Your task to perform on an android device: open app "Paramount+ | Peak Streaming" (install if not already installed) and enter user name: "fostered@yahoo.com" and password: "strong" Image 0: 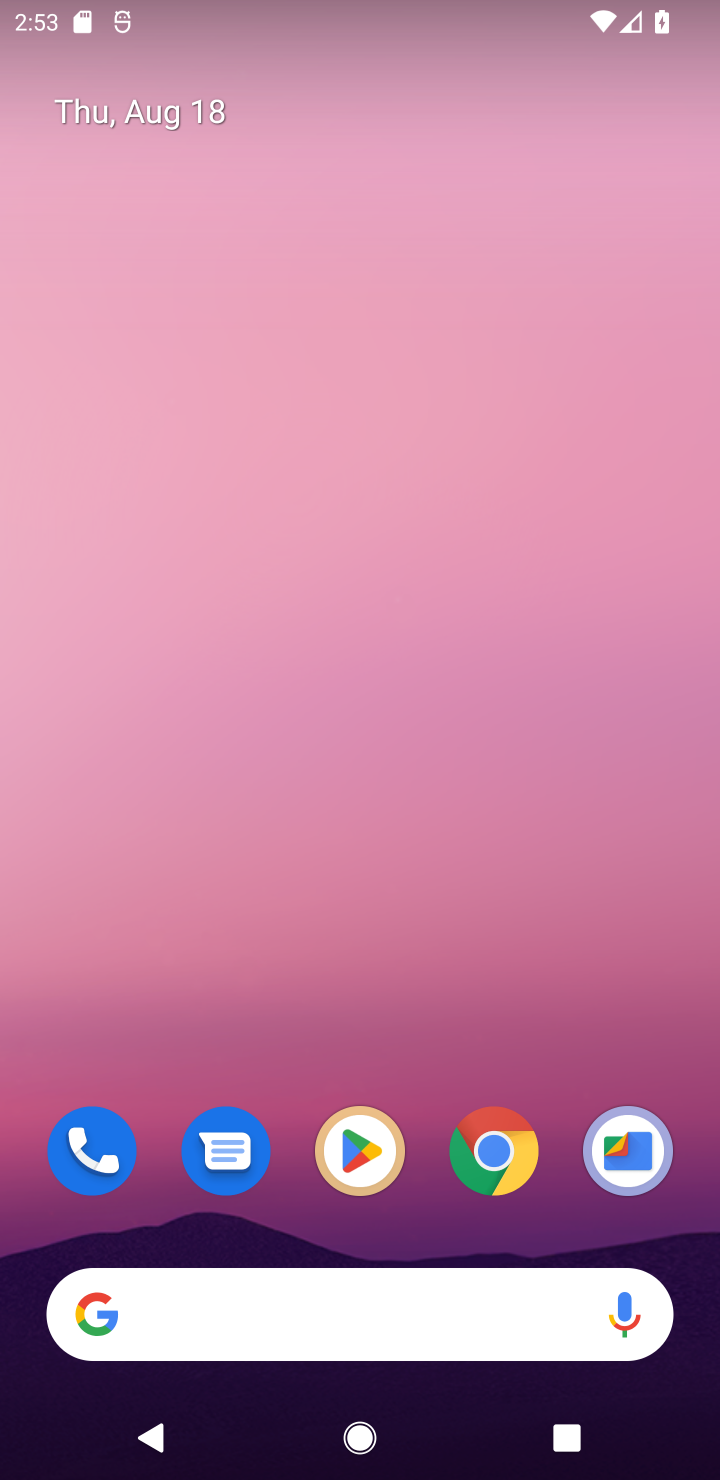
Step 0: click (378, 1148)
Your task to perform on an android device: open app "Paramount+ | Peak Streaming" (install if not already installed) and enter user name: "fostered@yahoo.com" and password: "strong" Image 1: 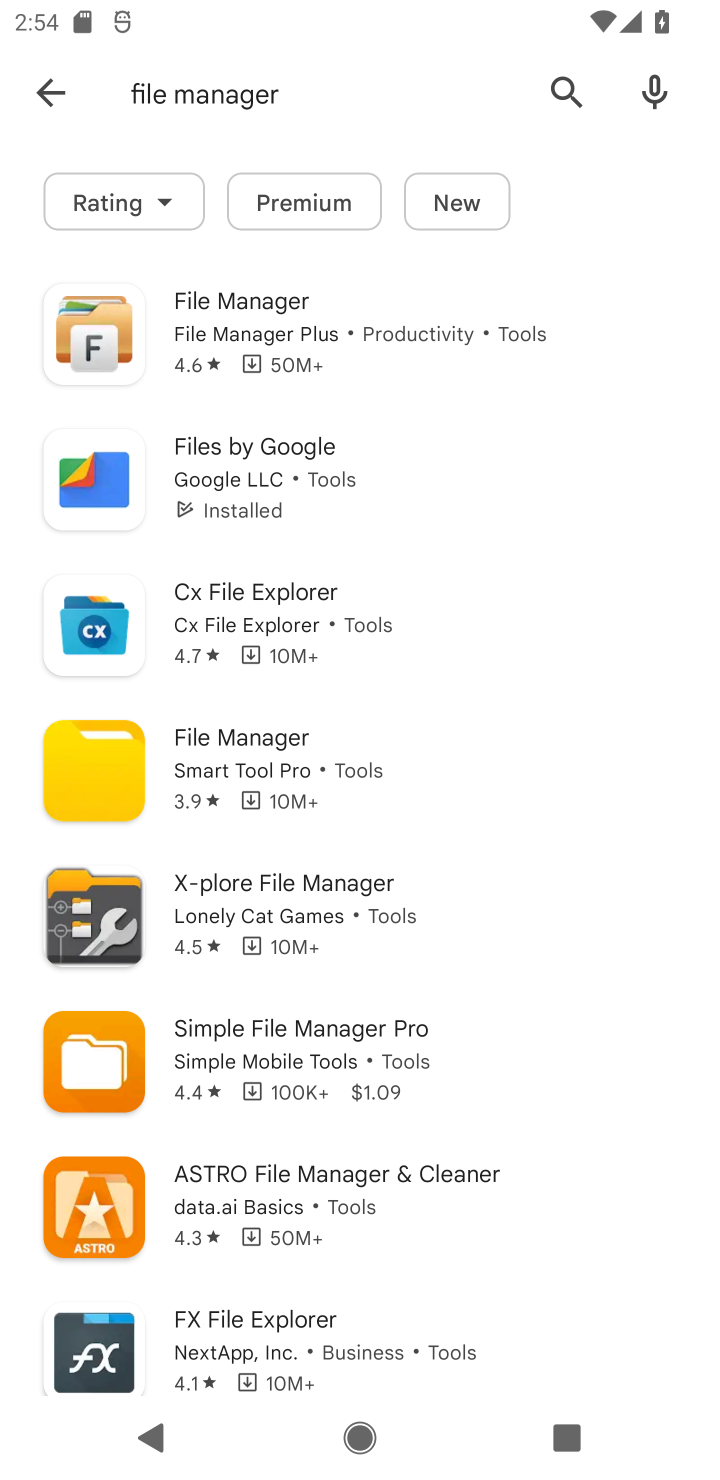
Step 1: click (585, 76)
Your task to perform on an android device: open app "Paramount+ | Peak Streaming" (install if not already installed) and enter user name: "fostered@yahoo.com" and password: "strong" Image 2: 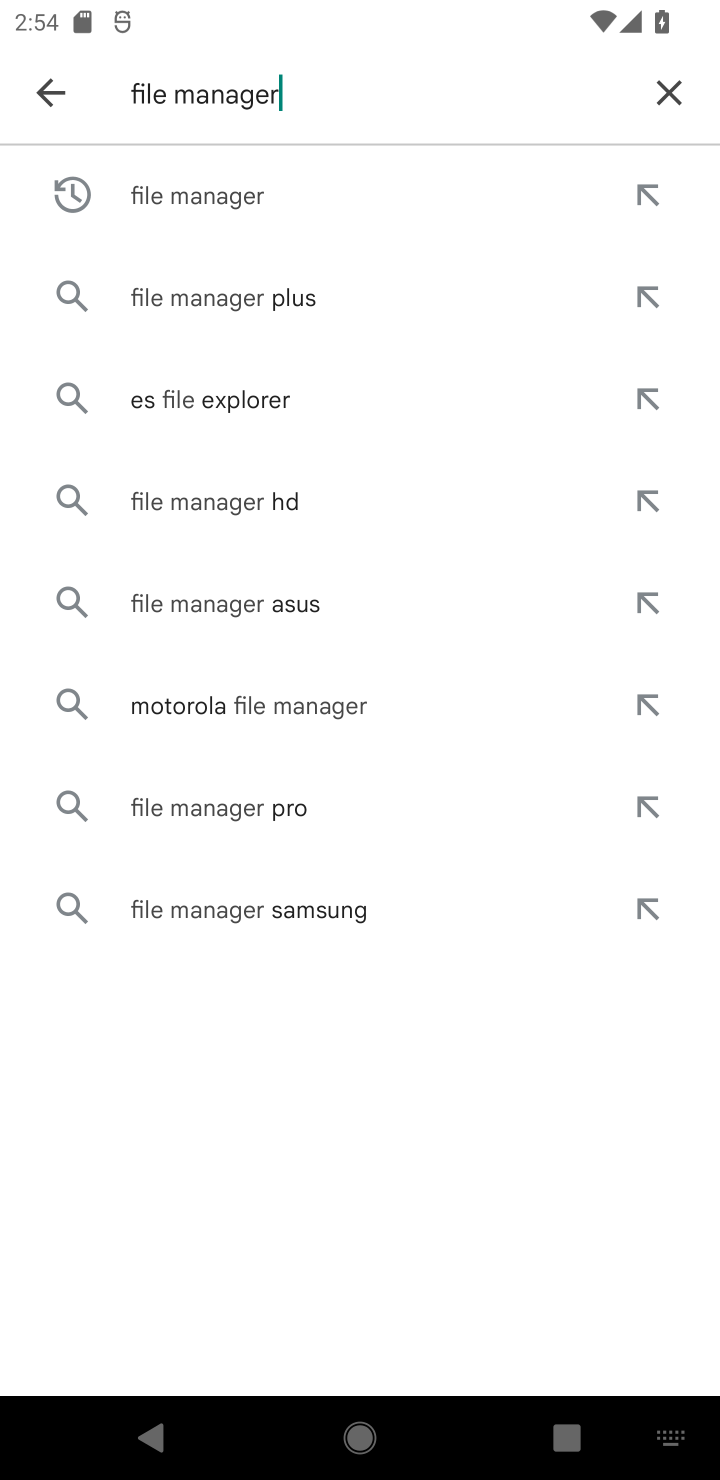
Step 2: click (681, 107)
Your task to perform on an android device: open app "Paramount+ | Peak Streaming" (install if not already installed) and enter user name: "fostered@yahoo.com" and password: "strong" Image 3: 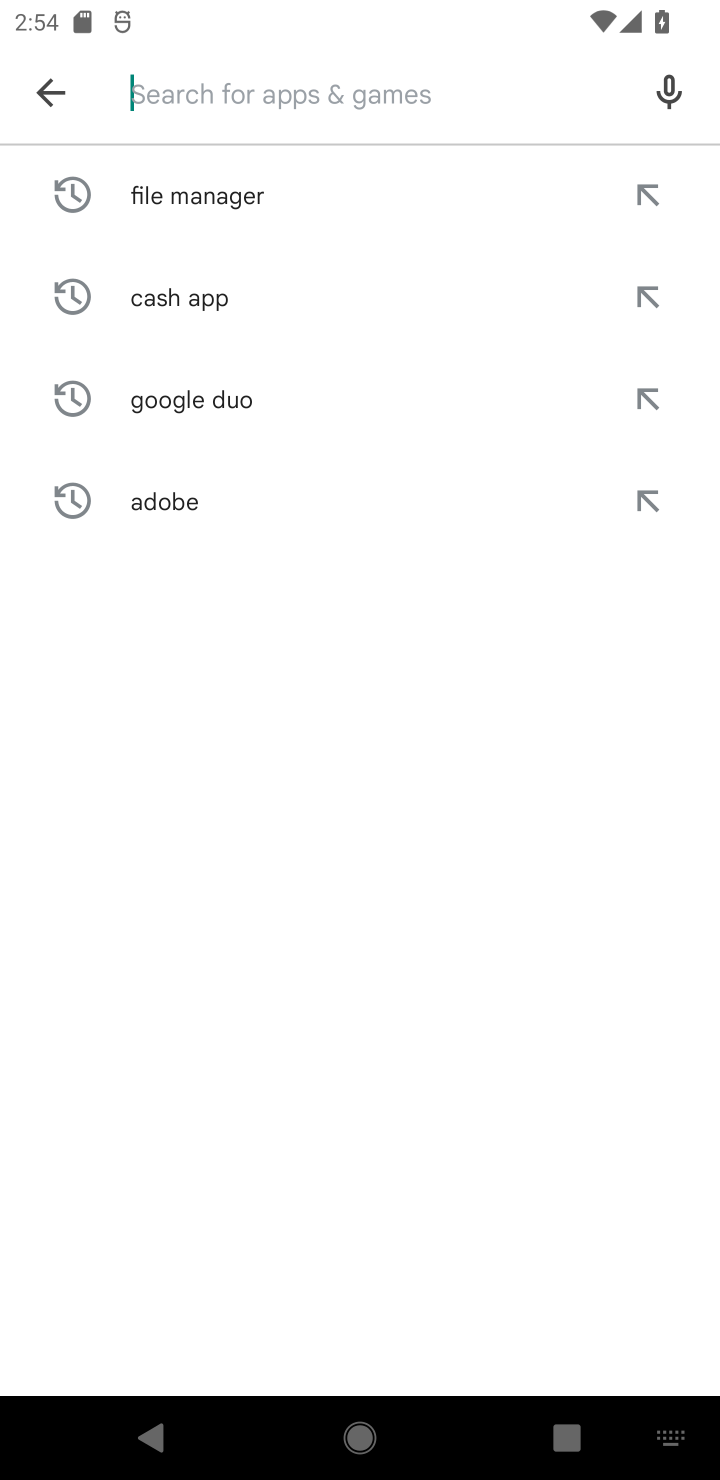
Step 3: type "paaramount"
Your task to perform on an android device: open app "Paramount+ | Peak Streaming" (install if not already installed) and enter user name: "fostered@yahoo.com" and password: "strong" Image 4: 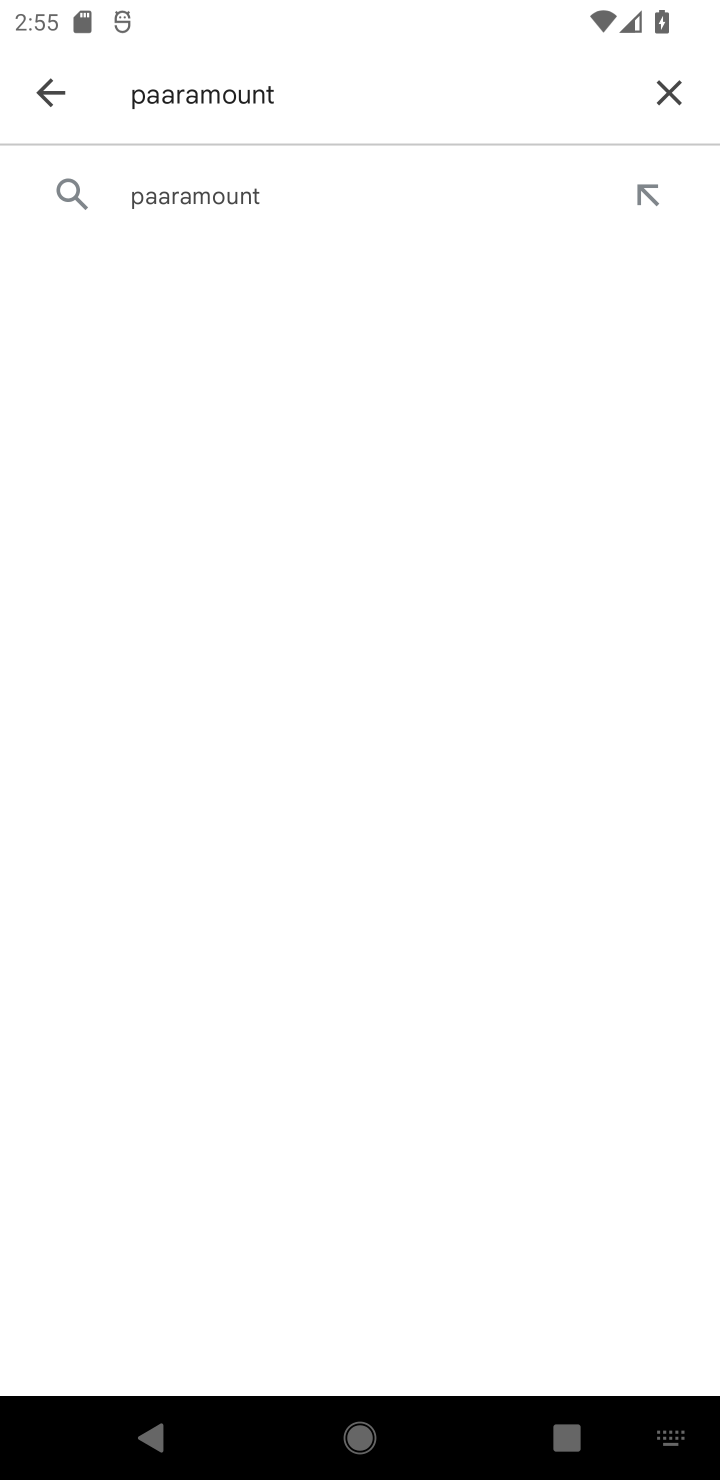
Step 4: click (378, 187)
Your task to perform on an android device: open app "Paramount+ | Peak Streaming" (install if not already installed) and enter user name: "fostered@yahoo.com" and password: "strong" Image 5: 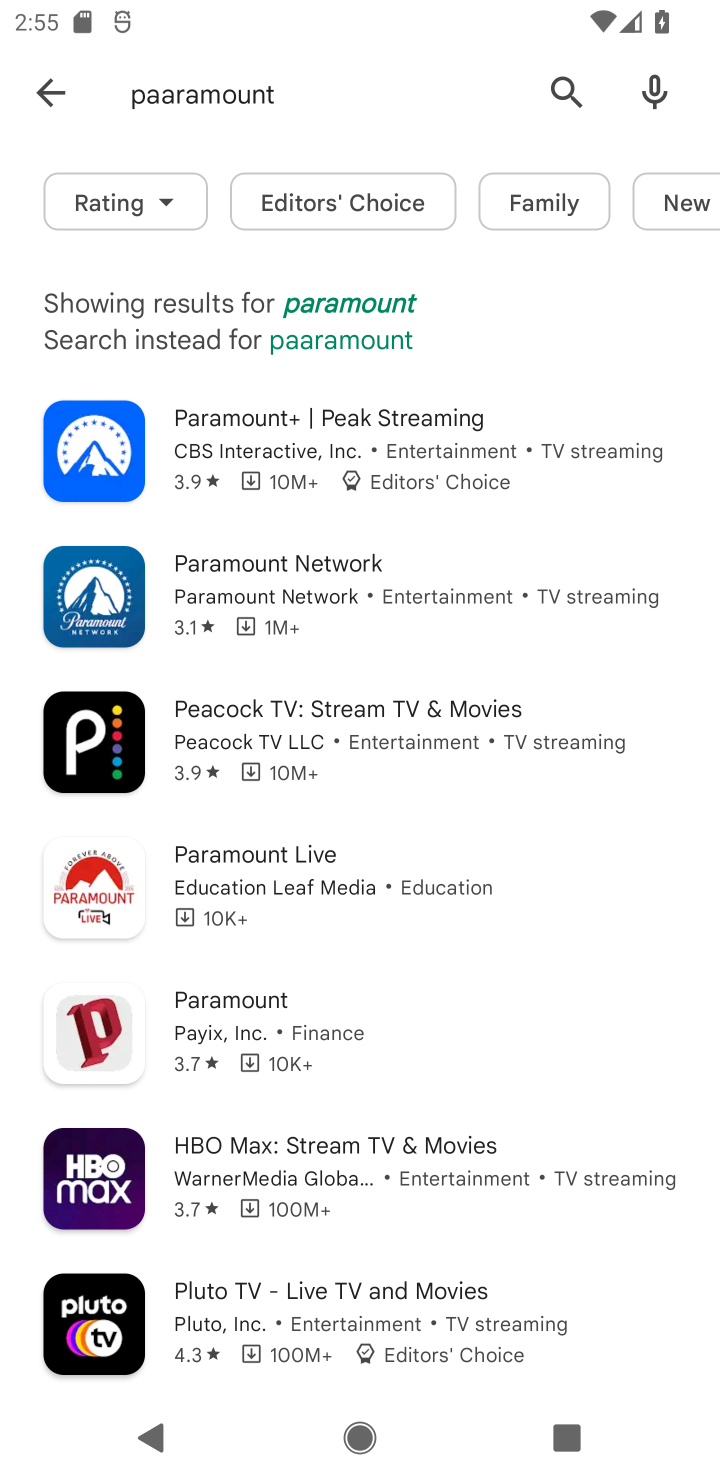
Step 5: click (406, 417)
Your task to perform on an android device: open app "Paramount+ | Peak Streaming" (install if not already installed) and enter user name: "fostered@yahoo.com" and password: "strong" Image 6: 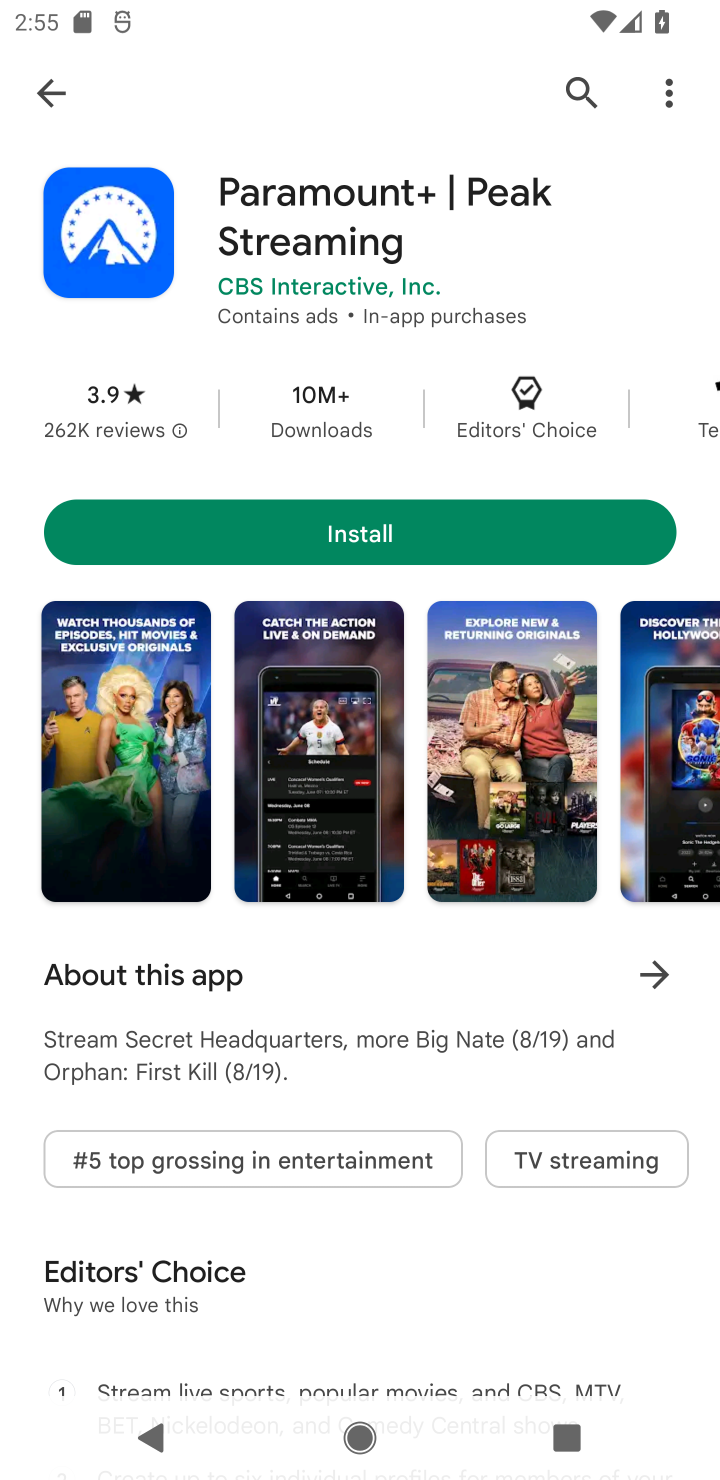
Step 6: click (352, 531)
Your task to perform on an android device: open app "Paramount+ | Peak Streaming" (install if not already installed) and enter user name: "fostered@yahoo.com" and password: "strong" Image 7: 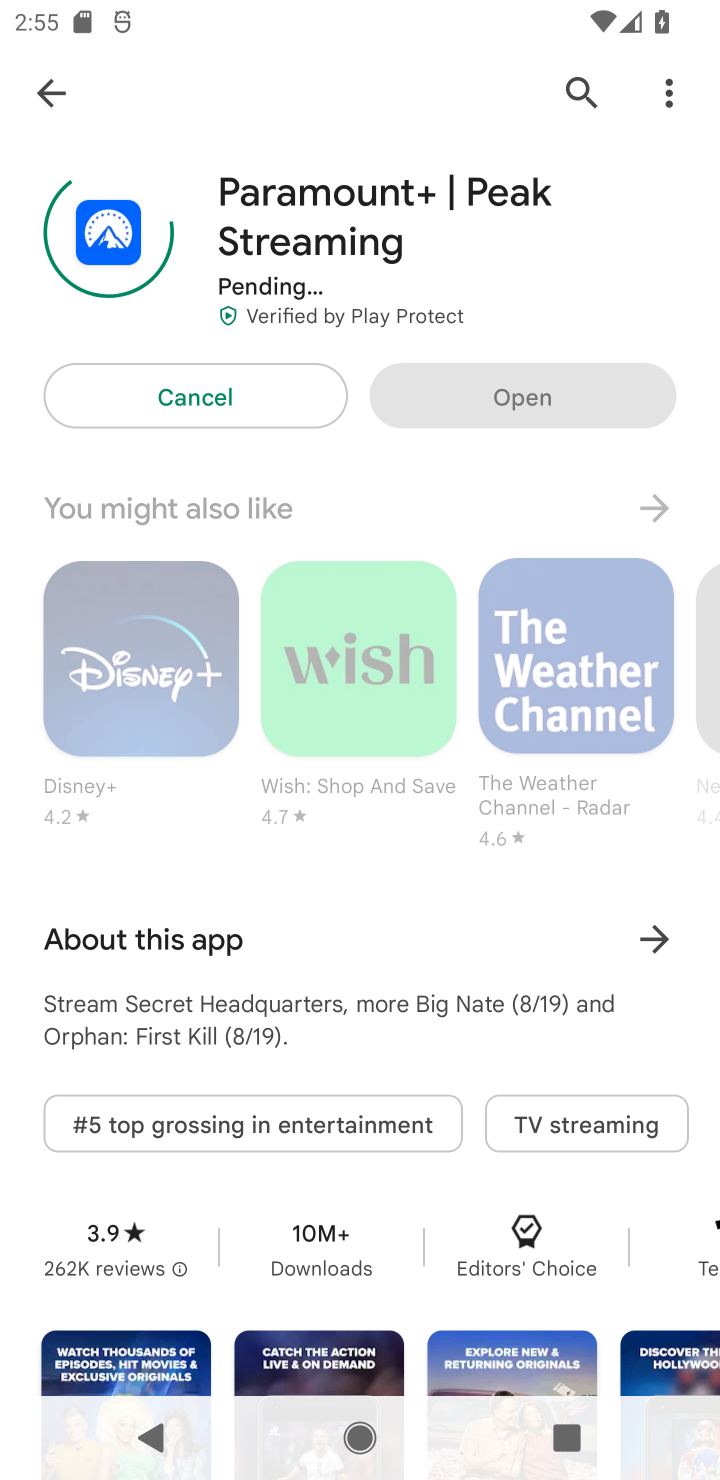
Step 7: task complete